Your task to perform on an android device: Open Chrome and go to settings Image 0: 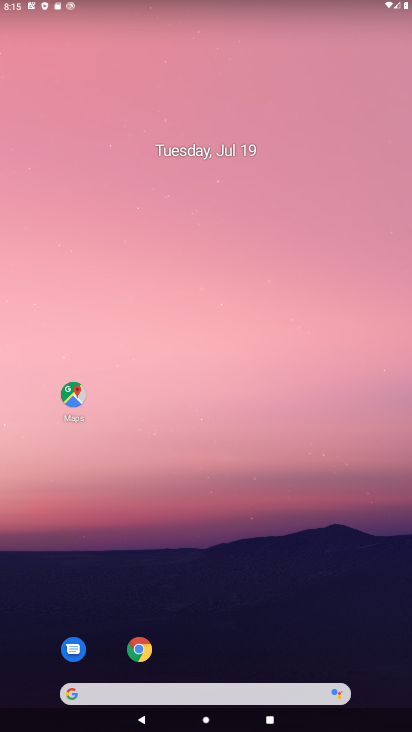
Step 0: press home button
Your task to perform on an android device: Open Chrome and go to settings Image 1: 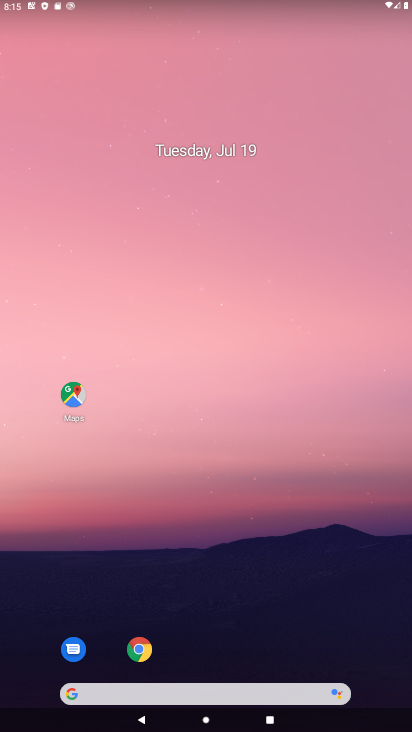
Step 1: click (141, 647)
Your task to perform on an android device: Open Chrome and go to settings Image 2: 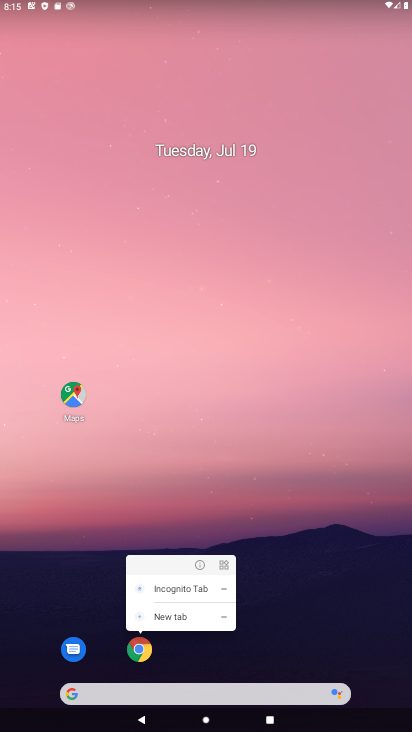
Step 2: click (143, 647)
Your task to perform on an android device: Open Chrome and go to settings Image 3: 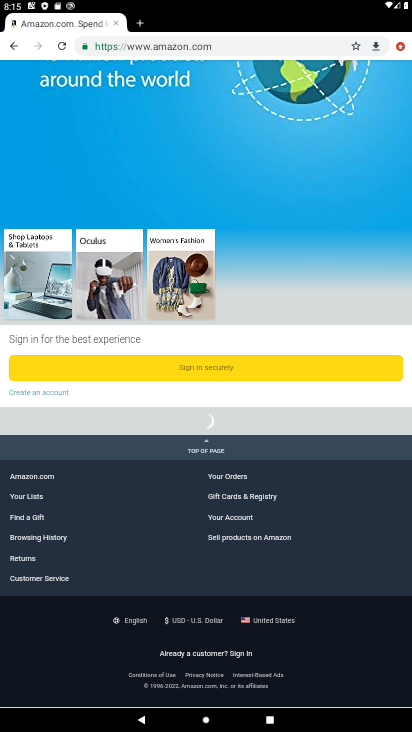
Step 3: click (398, 46)
Your task to perform on an android device: Open Chrome and go to settings Image 4: 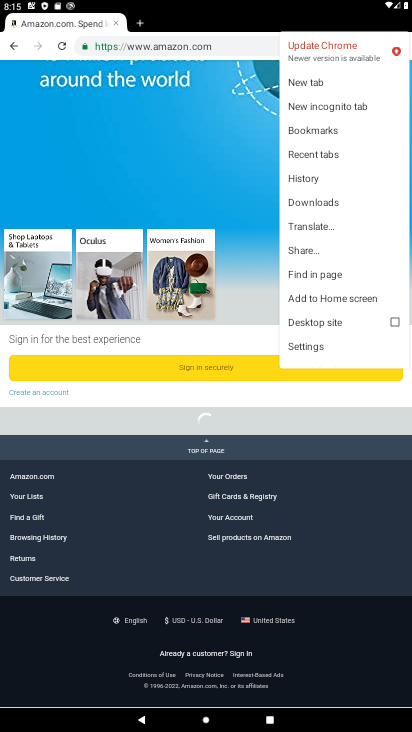
Step 4: click (335, 344)
Your task to perform on an android device: Open Chrome and go to settings Image 5: 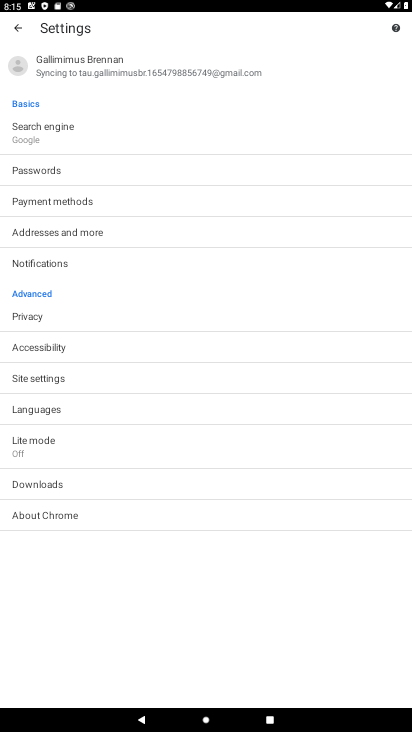
Step 5: task complete